Your task to perform on an android device: toggle javascript in the chrome app Image 0: 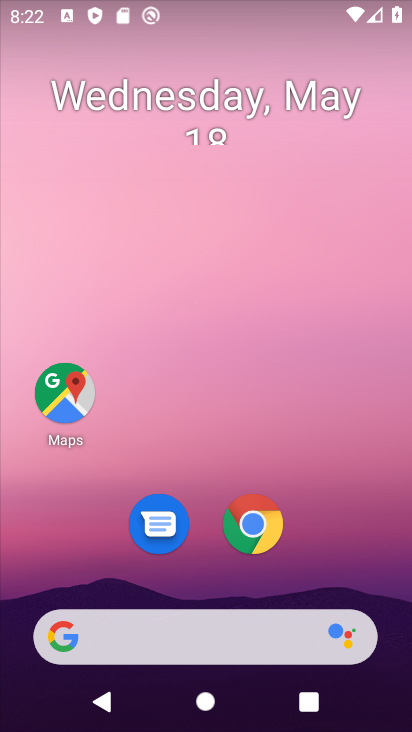
Step 0: click (250, 521)
Your task to perform on an android device: toggle javascript in the chrome app Image 1: 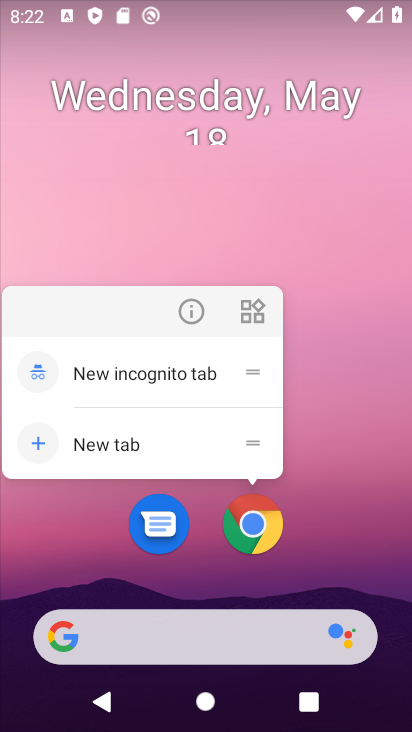
Step 1: click (266, 518)
Your task to perform on an android device: toggle javascript in the chrome app Image 2: 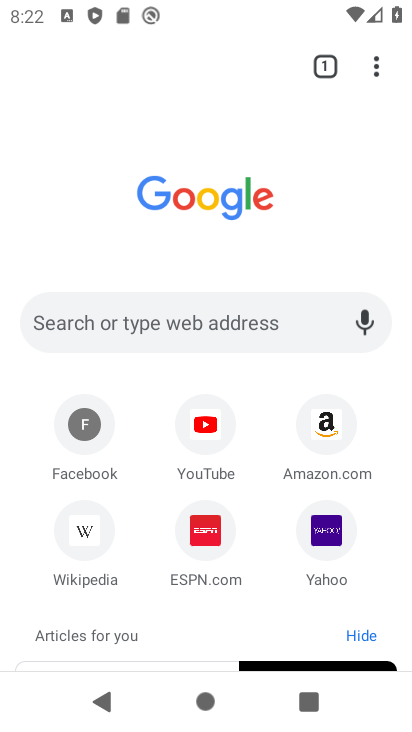
Step 2: click (375, 70)
Your task to perform on an android device: toggle javascript in the chrome app Image 3: 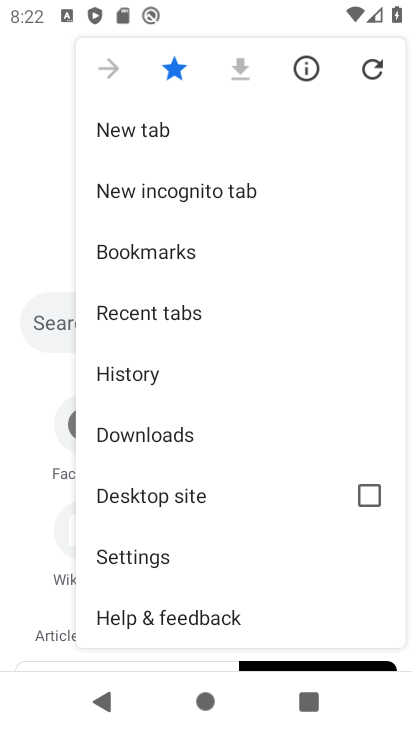
Step 3: click (179, 551)
Your task to perform on an android device: toggle javascript in the chrome app Image 4: 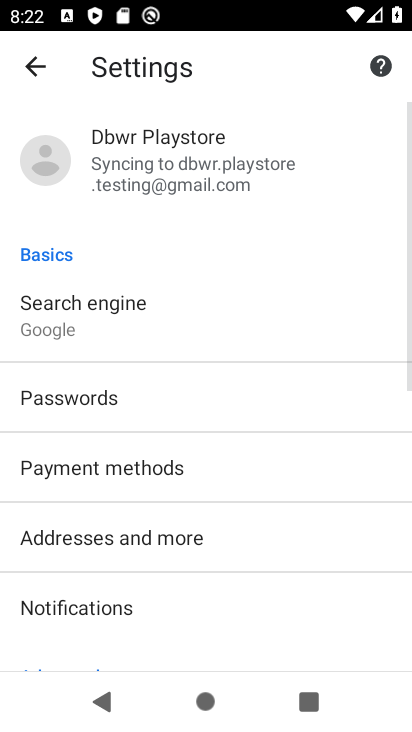
Step 4: drag from (245, 471) to (266, 85)
Your task to perform on an android device: toggle javascript in the chrome app Image 5: 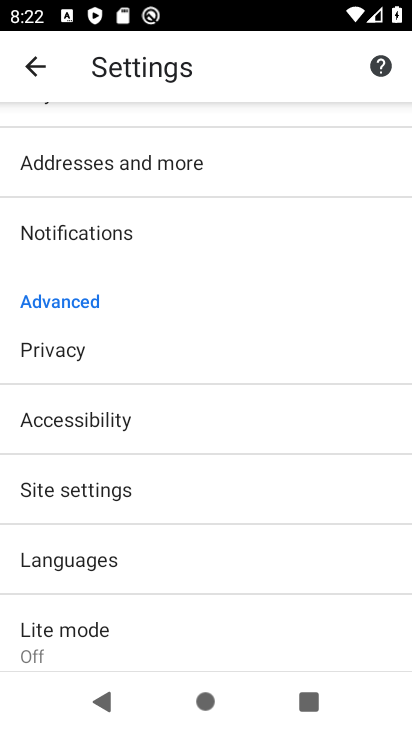
Step 5: click (174, 493)
Your task to perform on an android device: toggle javascript in the chrome app Image 6: 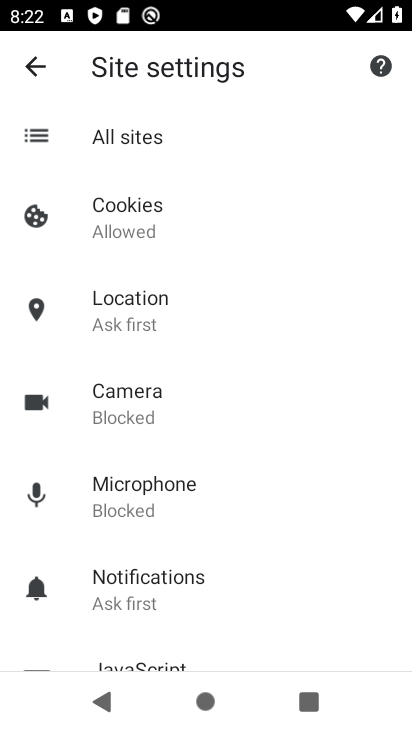
Step 6: drag from (208, 532) to (238, 283)
Your task to perform on an android device: toggle javascript in the chrome app Image 7: 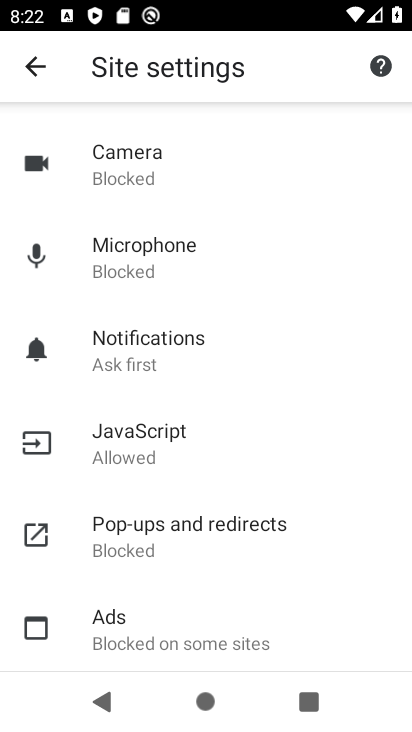
Step 7: click (228, 444)
Your task to perform on an android device: toggle javascript in the chrome app Image 8: 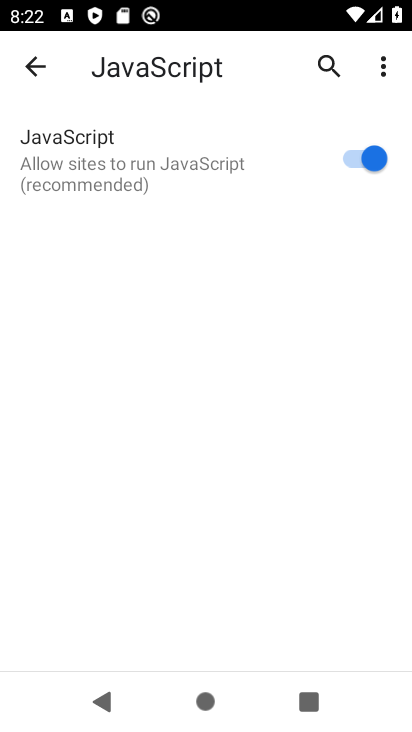
Step 8: click (342, 146)
Your task to perform on an android device: toggle javascript in the chrome app Image 9: 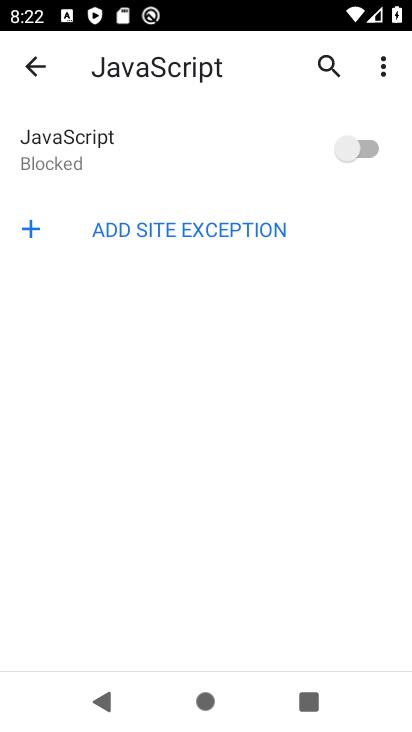
Step 9: task complete